Your task to perform on an android device: Go to network settings Image 0: 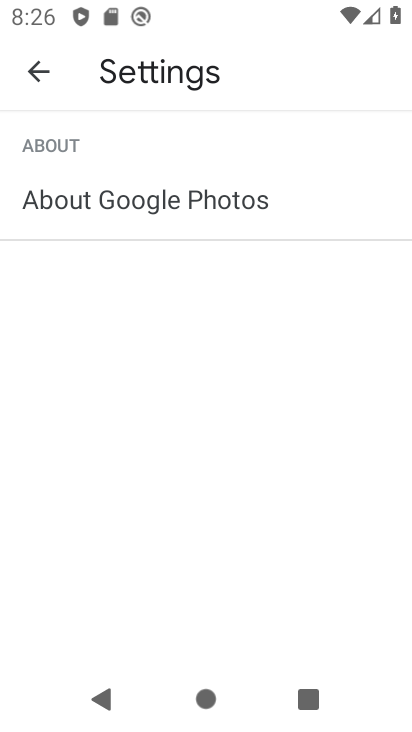
Step 0: press home button
Your task to perform on an android device: Go to network settings Image 1: 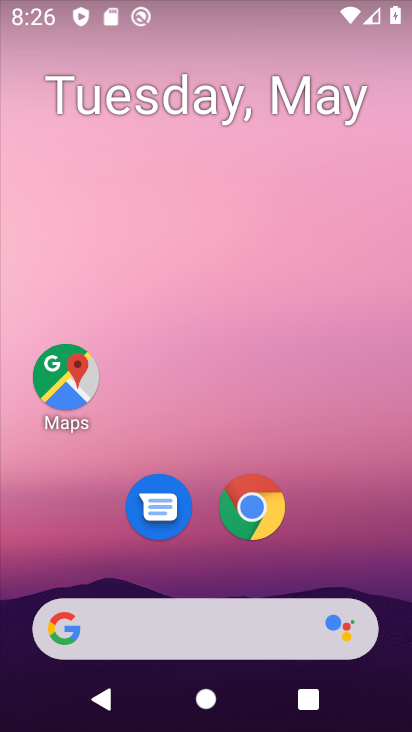
Step 1: drag from (349, 541) to (267, 73)
Your task to perform on an android device: Go to network settings Image 2: 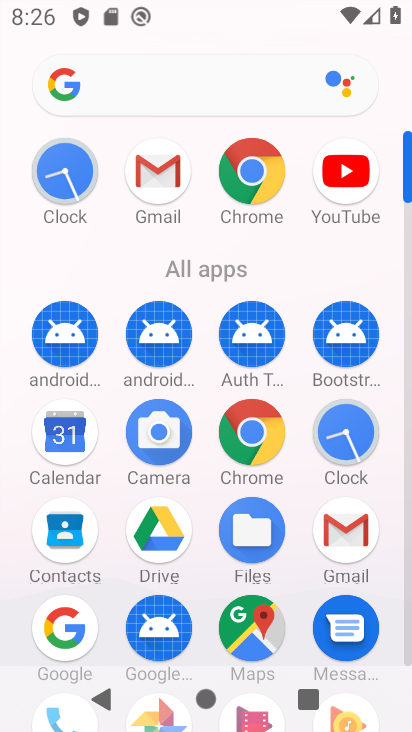
Step 2: click (409, 660)
Your task to perform on an android device: Go to network settings Image 3: 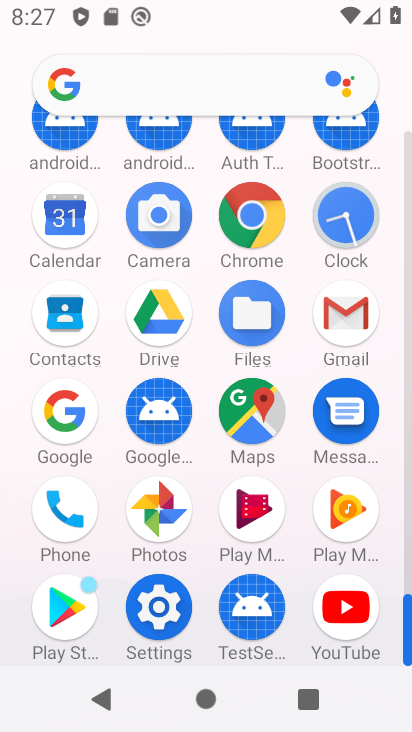
Step 3: click (170, 619)
Your task to perform on an android device: Go to network settings Image 4: 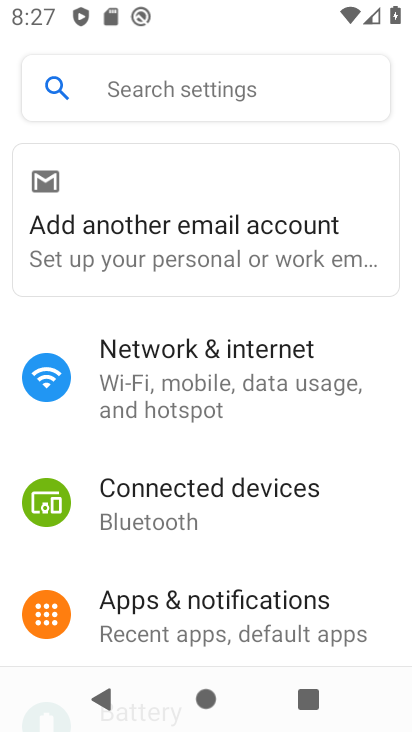
Step 4: click (207, 402)
Your task to perform on an android device: Go to network settings Image 5: 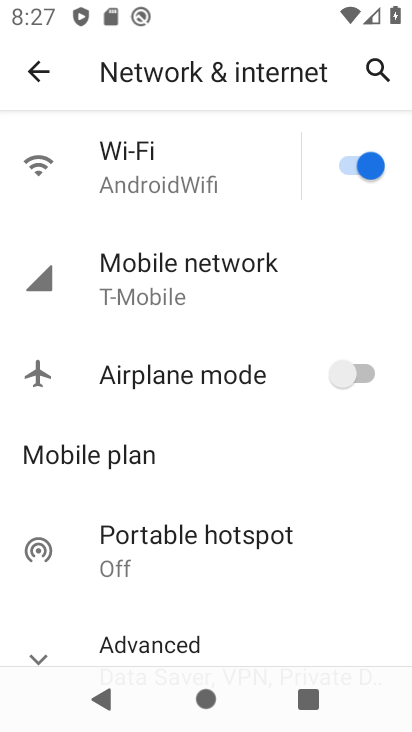
Step 5: task complete